Your task to perform on an android device: turn off improve location accuracy Image 0: 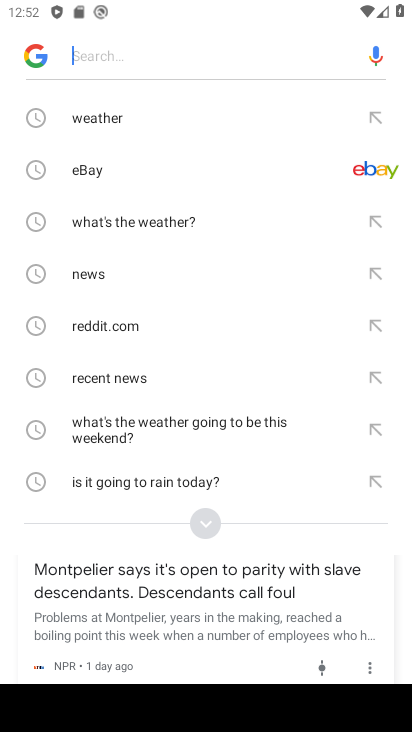
Step 0: press home button
Your task to perform on an android device: turn off improve location accuracy Image 1: 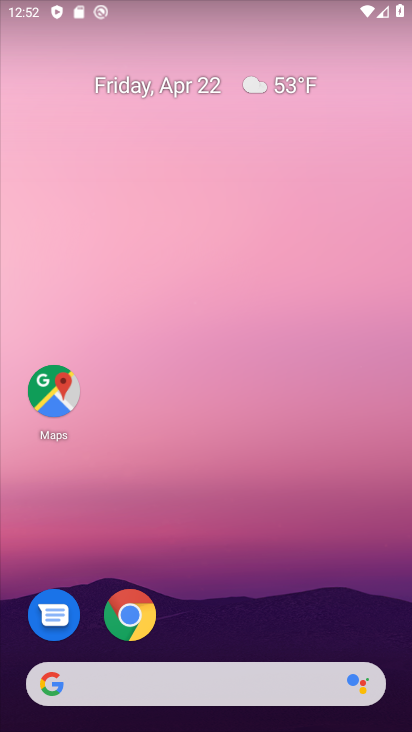
Step 1: drag from (267, 331) to (308, 65)
Your task to perform on an android device: turn off improve location accuracy Image 2: 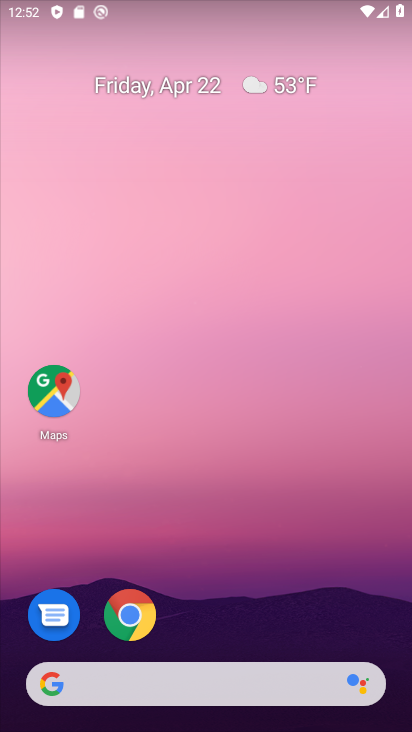
Step 2: drag from (183, 726) to (210, 46)
Your task to perform on an android device: turn off improve location accuracy Image 3: 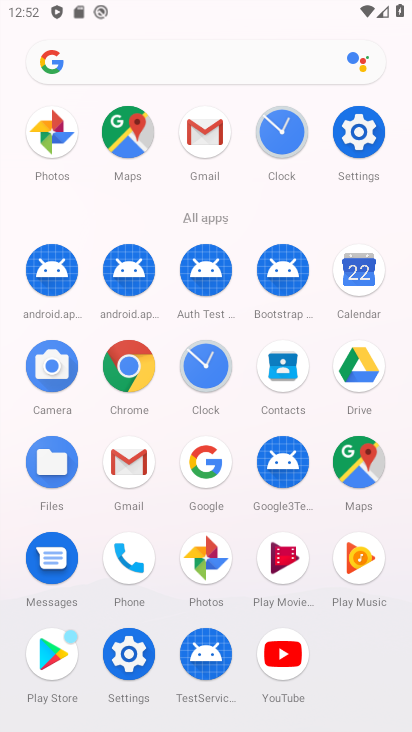
Step 3: click (350, 124)
Your task to perform on an android device: turn off improve location accuracy Image 4: 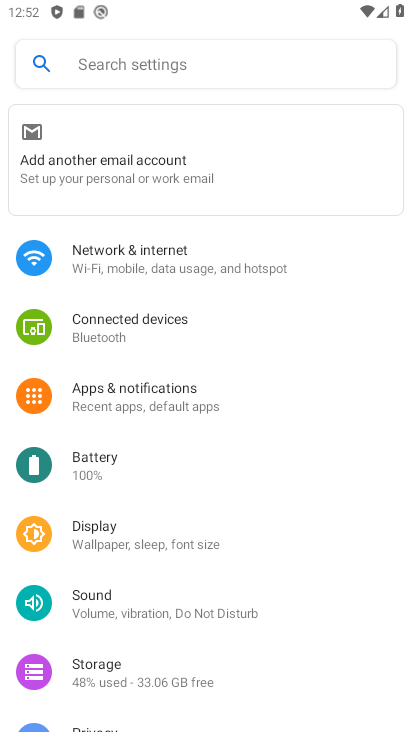
Step 4: drag from (180, 531) to (138, 222)
Your task to perform on an android device: turn off improve location accuracy Image 5: 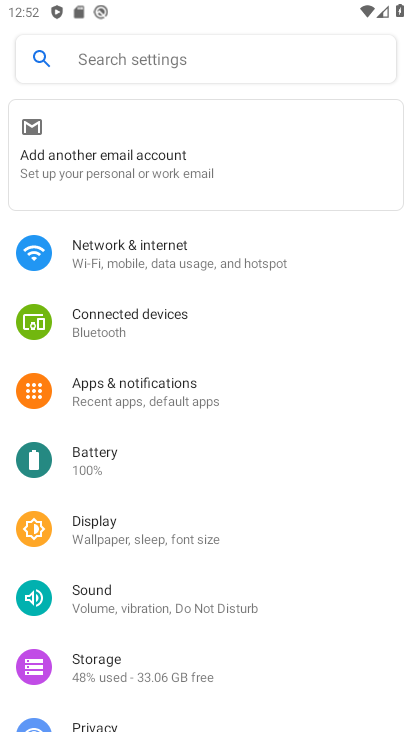
Step 5: drag from (325, 659) to (241, 179)
Your task to perform on an android device: turn off improve location accuracy Image 6: 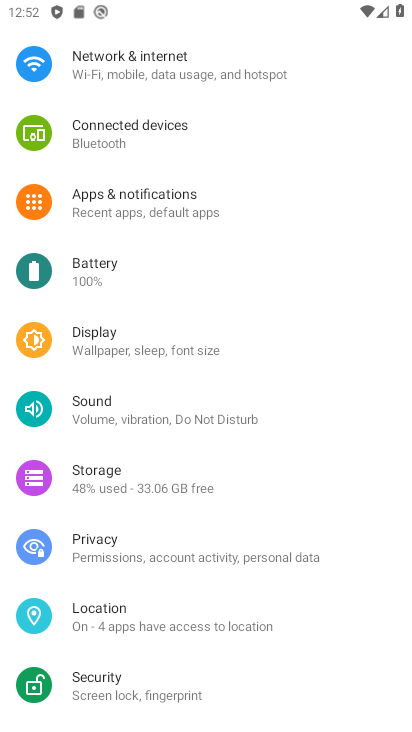
Step 6: click (161, 627)
Your task to perform on an android device: turn off improve location accuracy Image 7: 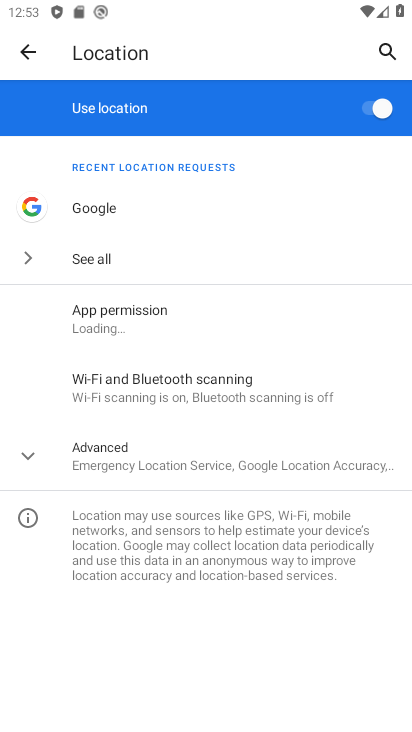
Step 7: click (250, 457)
Your task to perform on an android device: turn off improve location accuracy Image 8: 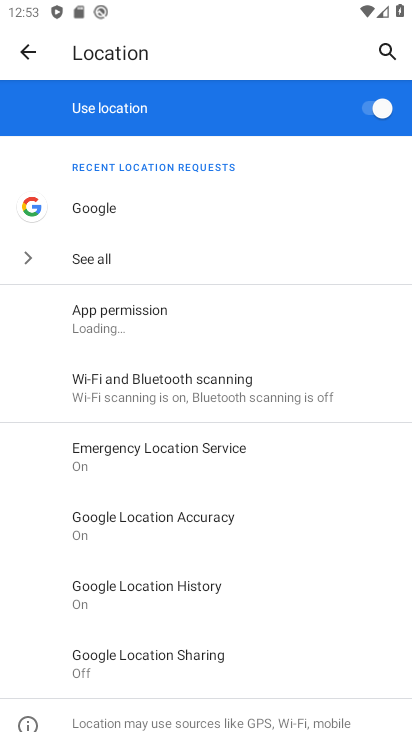
Step 8: click (216, 524)
Your task to perform on an android device: turn off improve location accuracy Image 9: 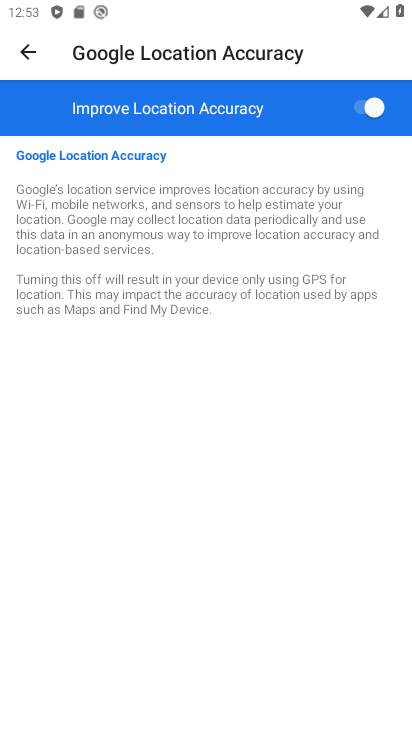
Step 9: drag from (373, 106) to (281, 699)
Your task to perform on an android device: turn off improve location accuracy Image 10: 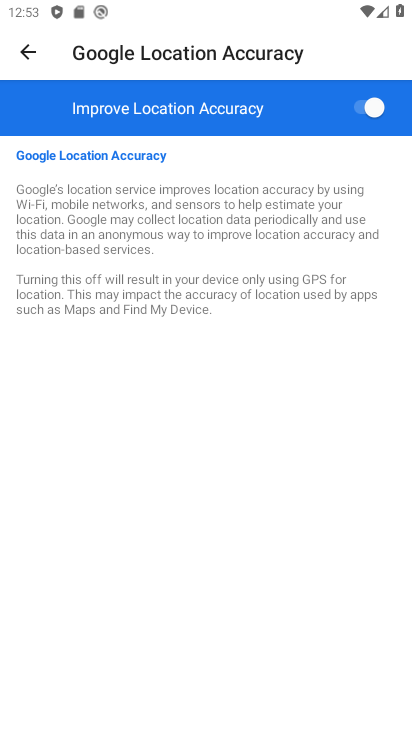
Step 10: click (368, 108)
Your task to perform on an android device: turn off improve location accuracy Image 11: 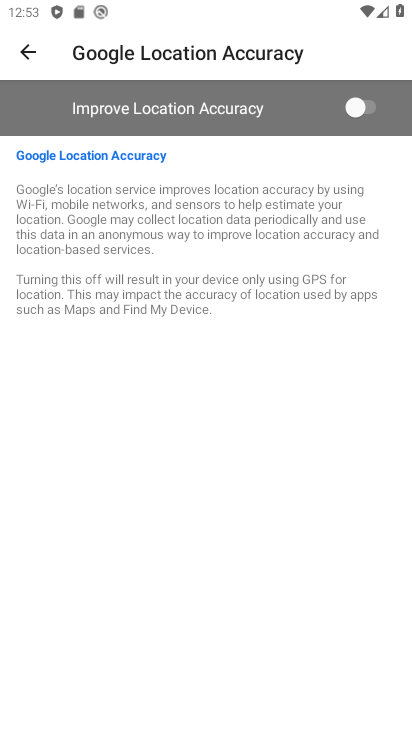
Step 11: task complete